Your task to perform on an android device: Clear the cart on bestbuy.com. Search for "usb-c to usb-b" on bestbuy.com, select the first entry, and add it to the cart. Image 0: 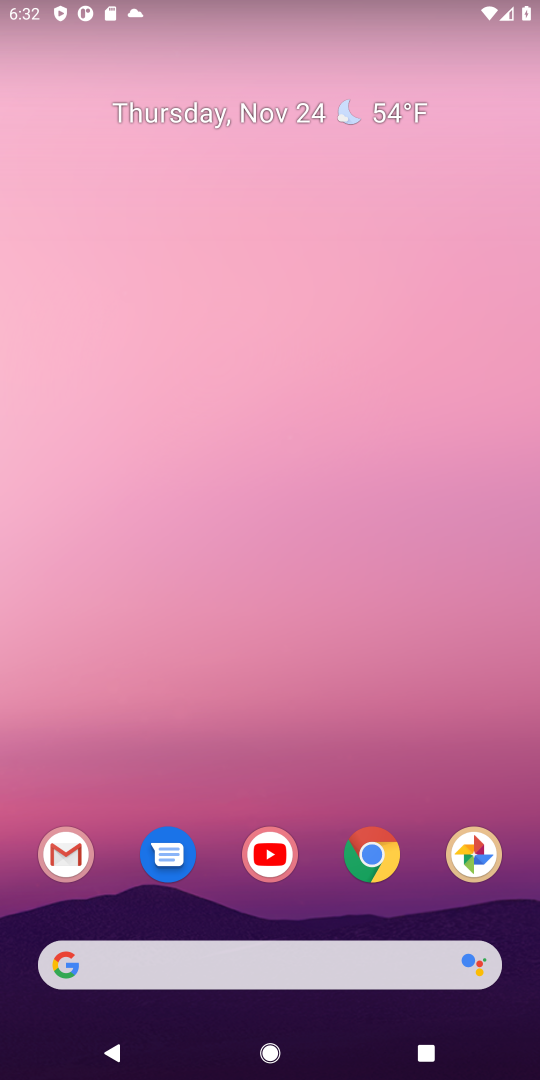
Step 0: click (359, 850)
Your task to perform on an android device: Clear the cart on bestbuy.com. Search for "usb-c to usb-b" on bestbuy.com, select the first entry, and add it to the cart. Image 1: 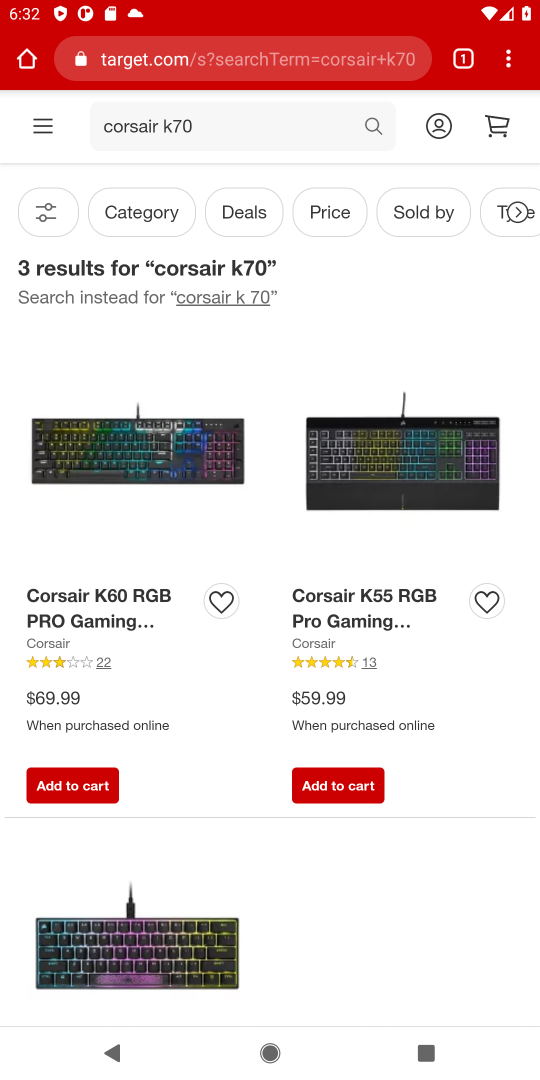
Step 1: click (241, 58)
Your task to perform on an android device: Clear the cart on bestbuy.com. Search for "usb-c to usb-b" on bestbuy.com, select the first entry, and add it to the cart. Image 2: 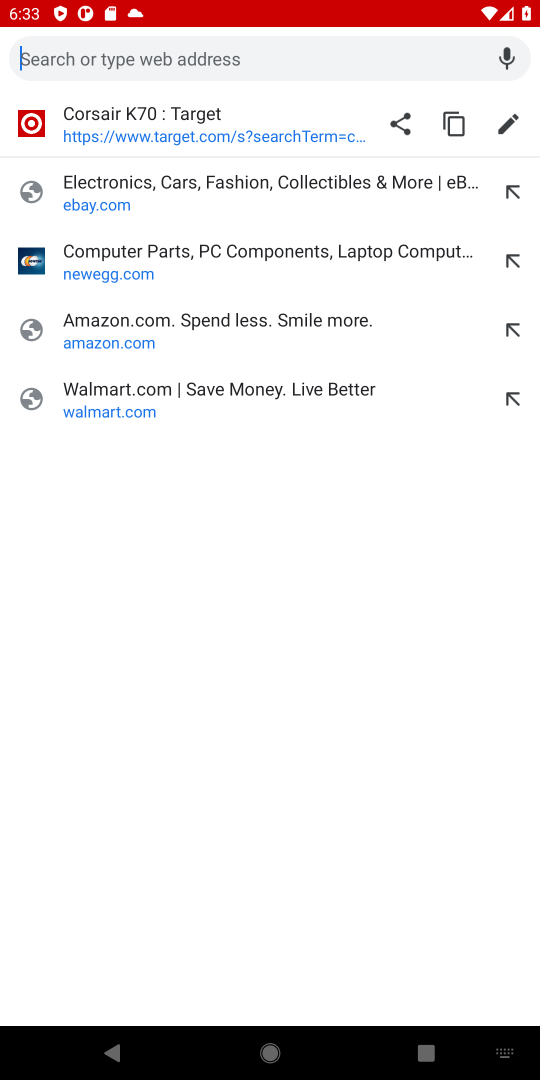
Step 2: type "bestbuy.com"
Your task to perform on an android device: Clear the cart on bestbuy.com. Search for "usb-c to usb-b" on bestbuy.com, select the first entry, and add it to the cart. Image 3: 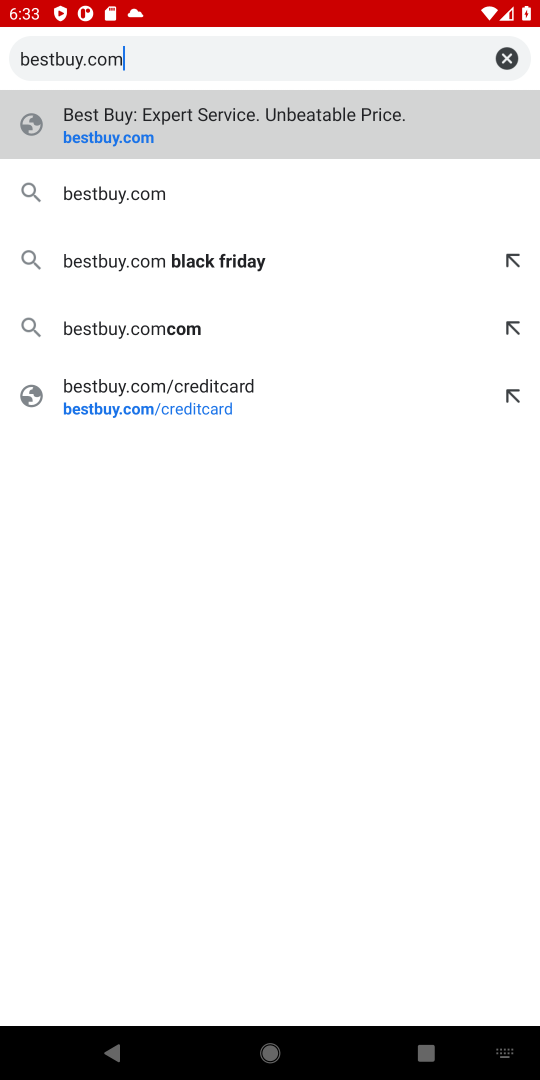
Step 3: click (94, 136)
Your task to perform on an android device: Clear the cart on bestbuy.com. Search for "usb-c to usb-b" on bestbuy.com, select the first entry, and add it to the cart. Image 4: 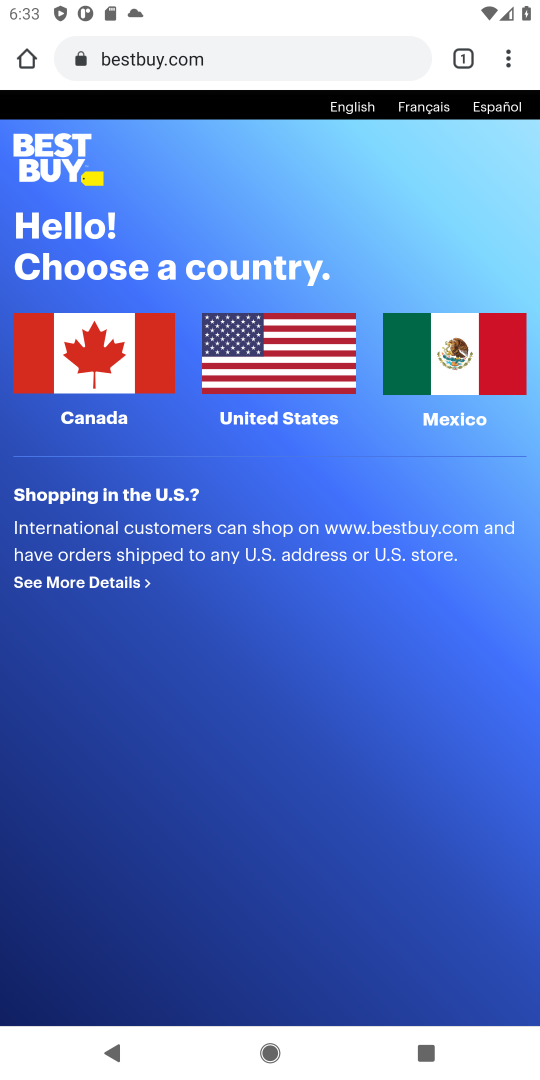
Step 4: click (278, 363)
Your task to perform on an android device: Clear the cart on bestbuy.com. Search for "usb-c to usb-b" on bestbuy.com, select the first entry, and add it to the cart. Image 5: 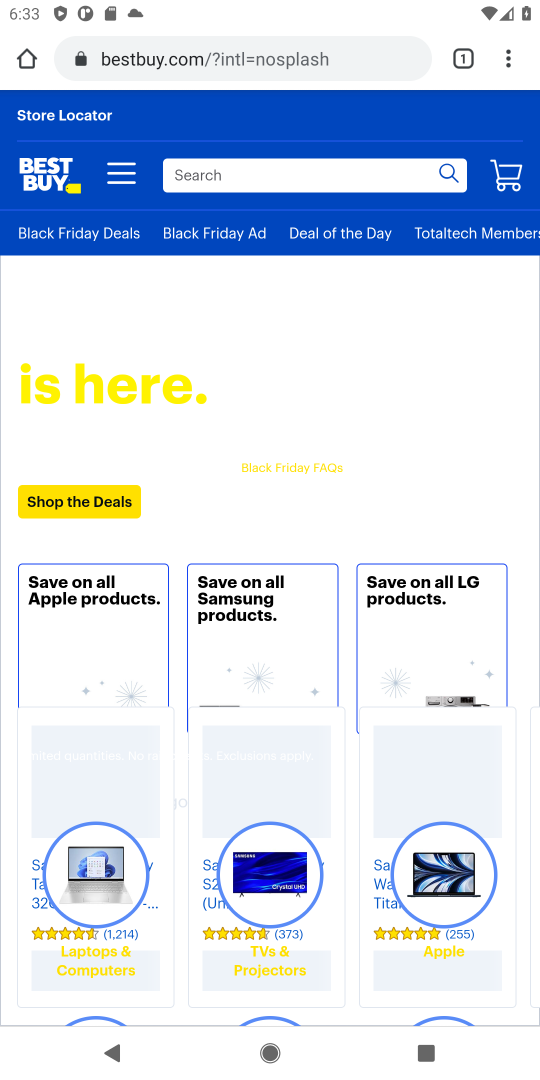
Step 5: click (511, 182)
Your task to perform on an android device: Clear the cart on bestbuy.com. Search for "usb-c to usb-b" on bestbuy.com, select the first entry, and add it to the cart. Image 6: 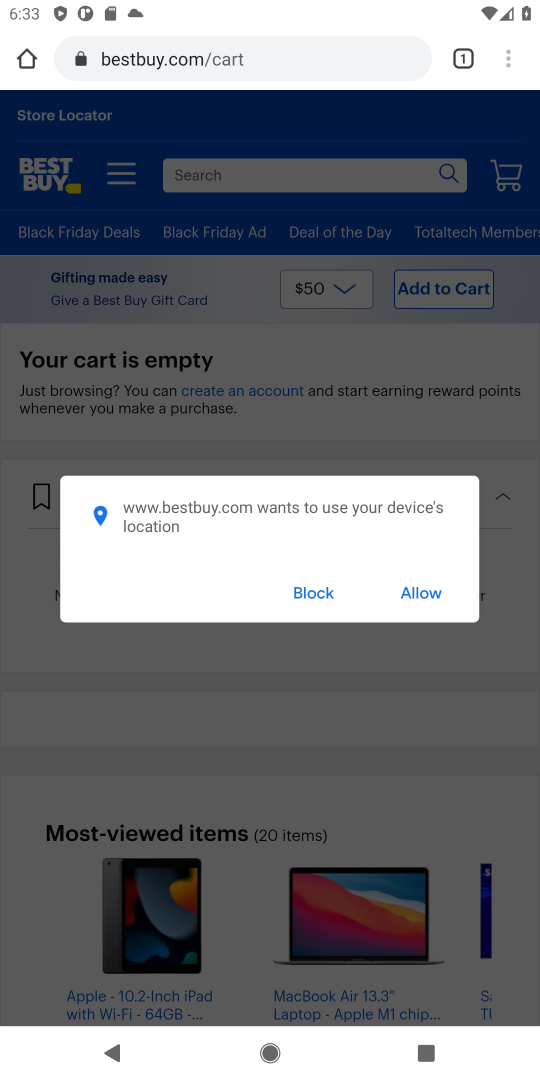
Step 6: click (321, 592)
Your task to perform on an android device: Clear the cart on bestbuy.com. Search for "usb-c to usb-b" on bestbuy.com, select the first entry, and add it to the cart. Image 7: 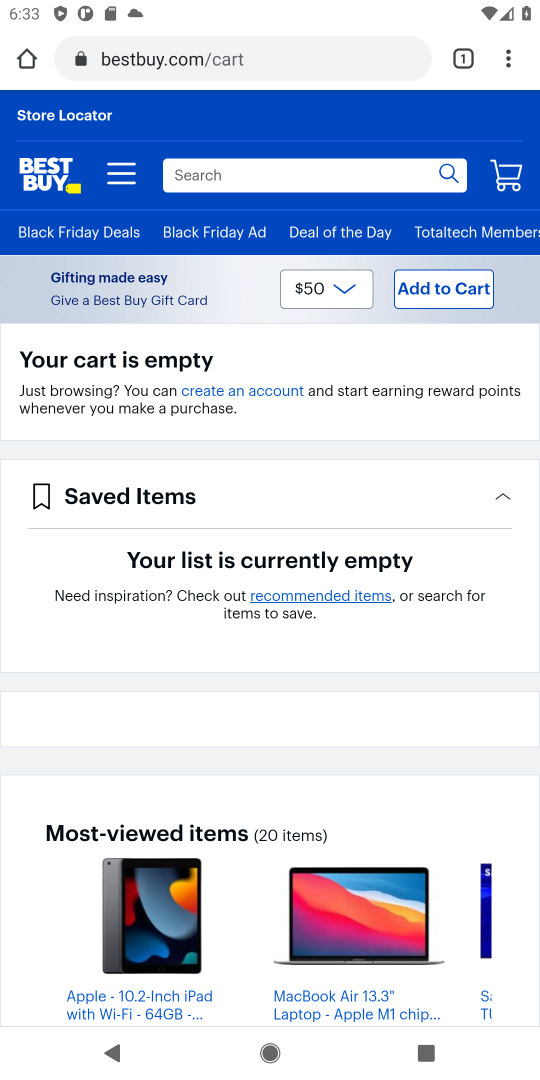
Step 7: click (272, 182)
Your task to perform on an android device: Clear the cart on bestbuy.com. Search for "usb-c to usb-b" on bestbuy.com, select the first entry, and add it to the cart. Image 8: 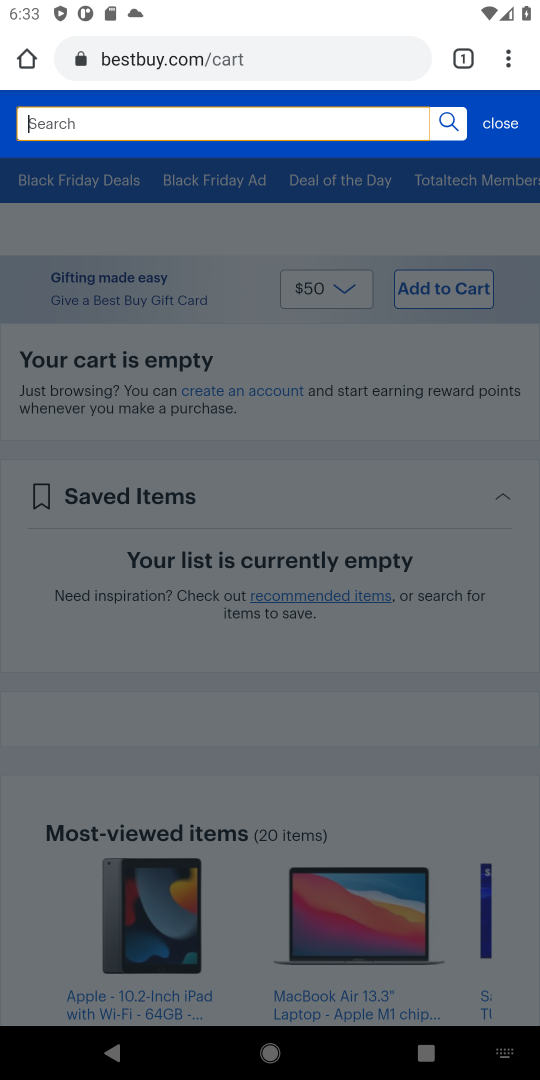
Step 8: type "usb-c to usb-b"
Your task to perform on an android device: Clear the cart on bestbuy.com. Search for "usb-c to usb-b" on bestbuy.com, select the first entry, and add it to the cart. Image 9: 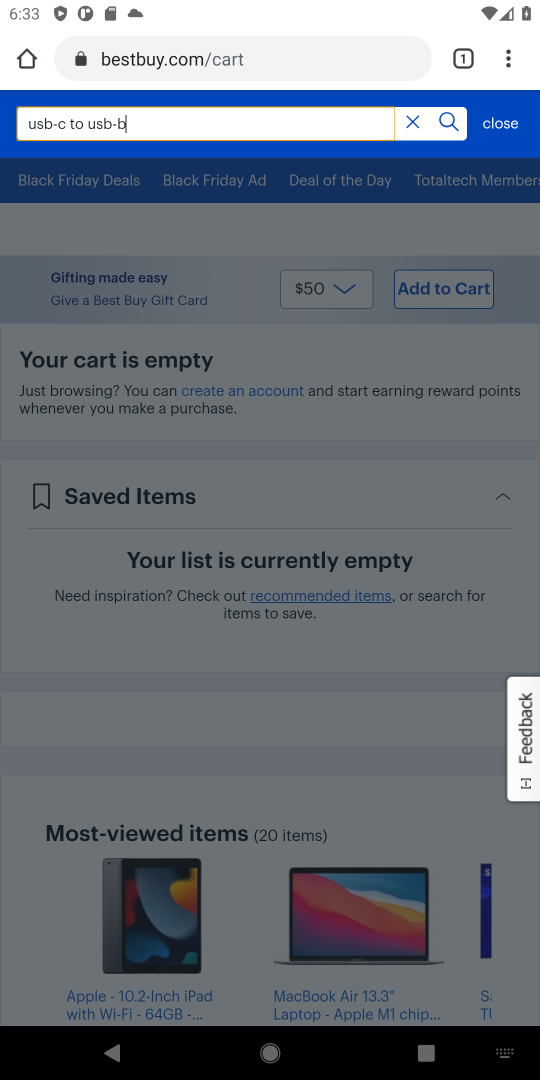
Step 9: click (450, 118)
Your task to perform on an android device: Clear the cart on bestbuy.com. Search for "usb-c to usb-b" on bestbuy.com, select the first entry, and add it to the cart. Image 10: 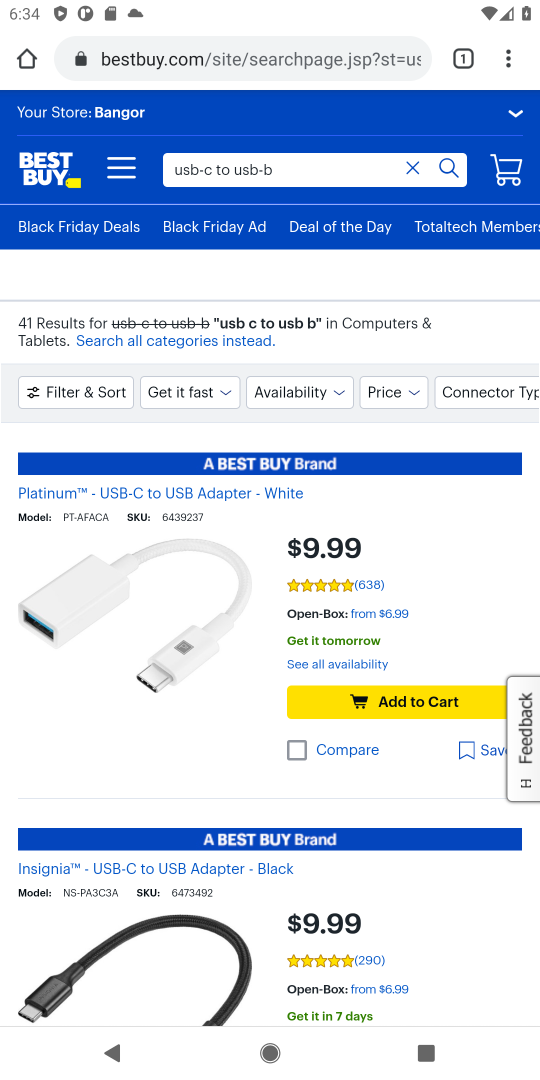
Step 10: task complete